Your task to perform on an android device: Go to network settings Image 0: 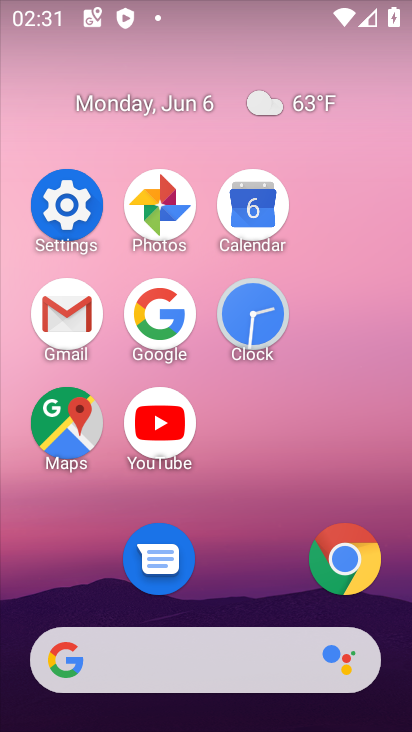
Step 0: click (73, 217)
Your task to perform on an android device: Go to network settings Image 1: 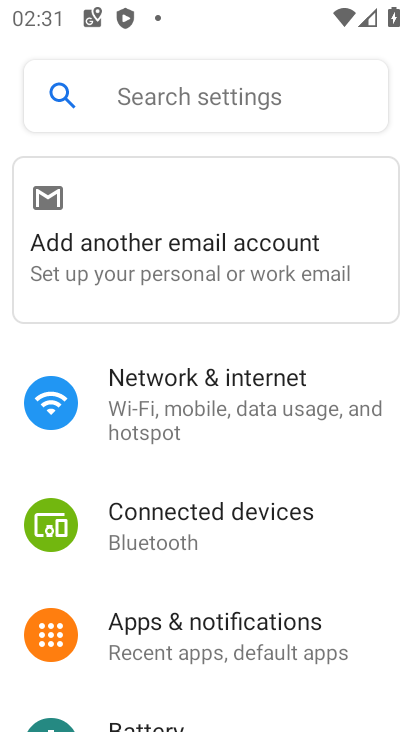
Step 1: click (264, 388)
Your task to perform on an android device: Go to network settings Image 2: 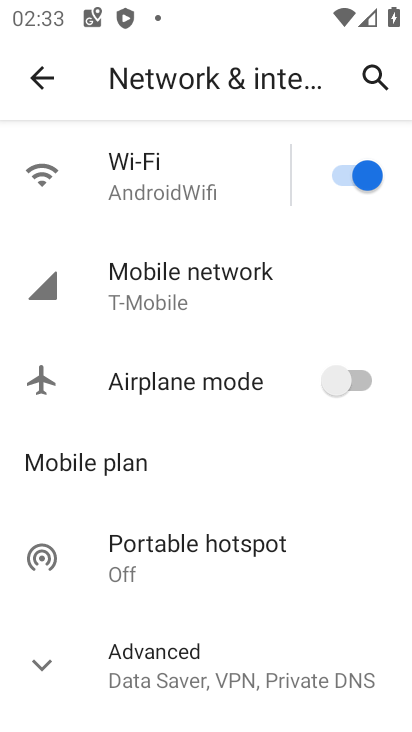
Step 2: task complete